Your task to perform on an android device: Add alienware aurora to the cart on newegg.com, then select checkout. Image 0: 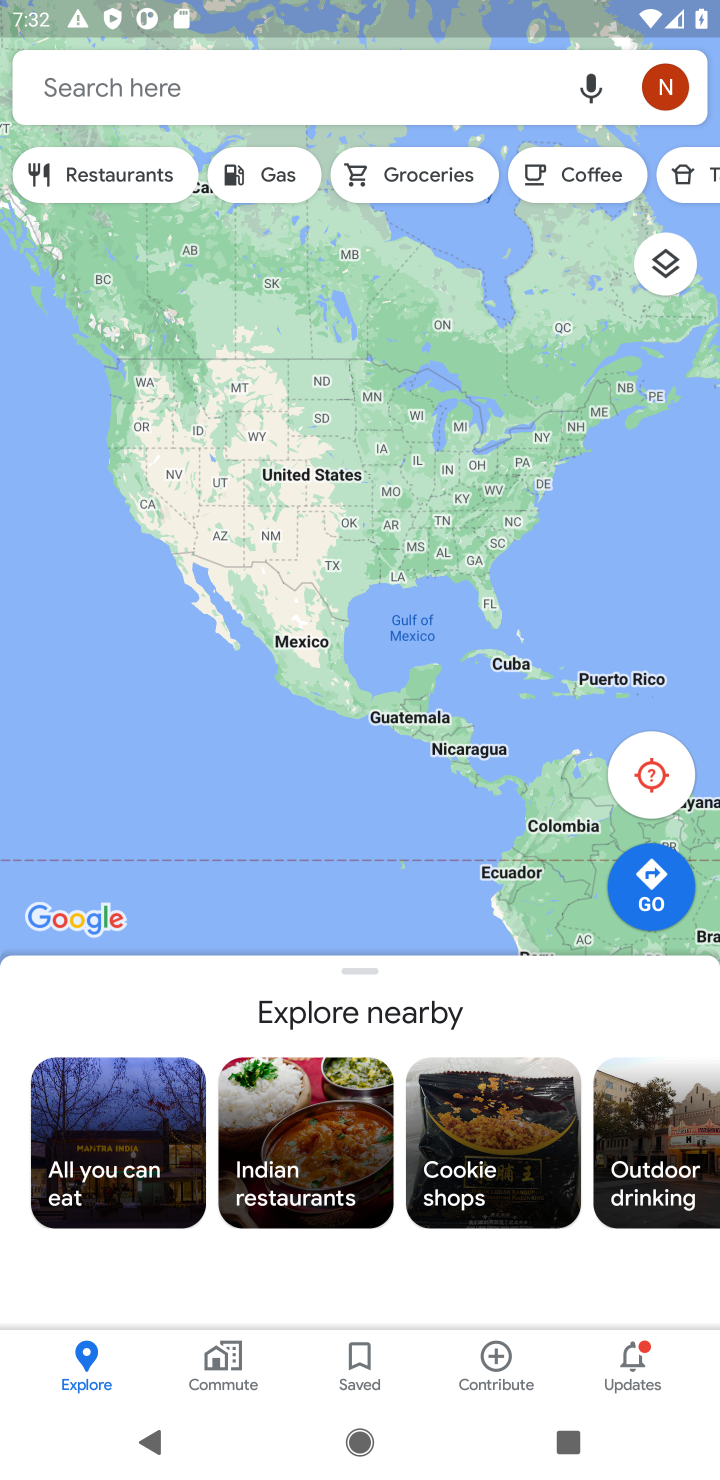
Step 0: press home button
Your task to perform on an android device: Add alienware aurora to the cart on newegg.com, then select checkout. Image 1: 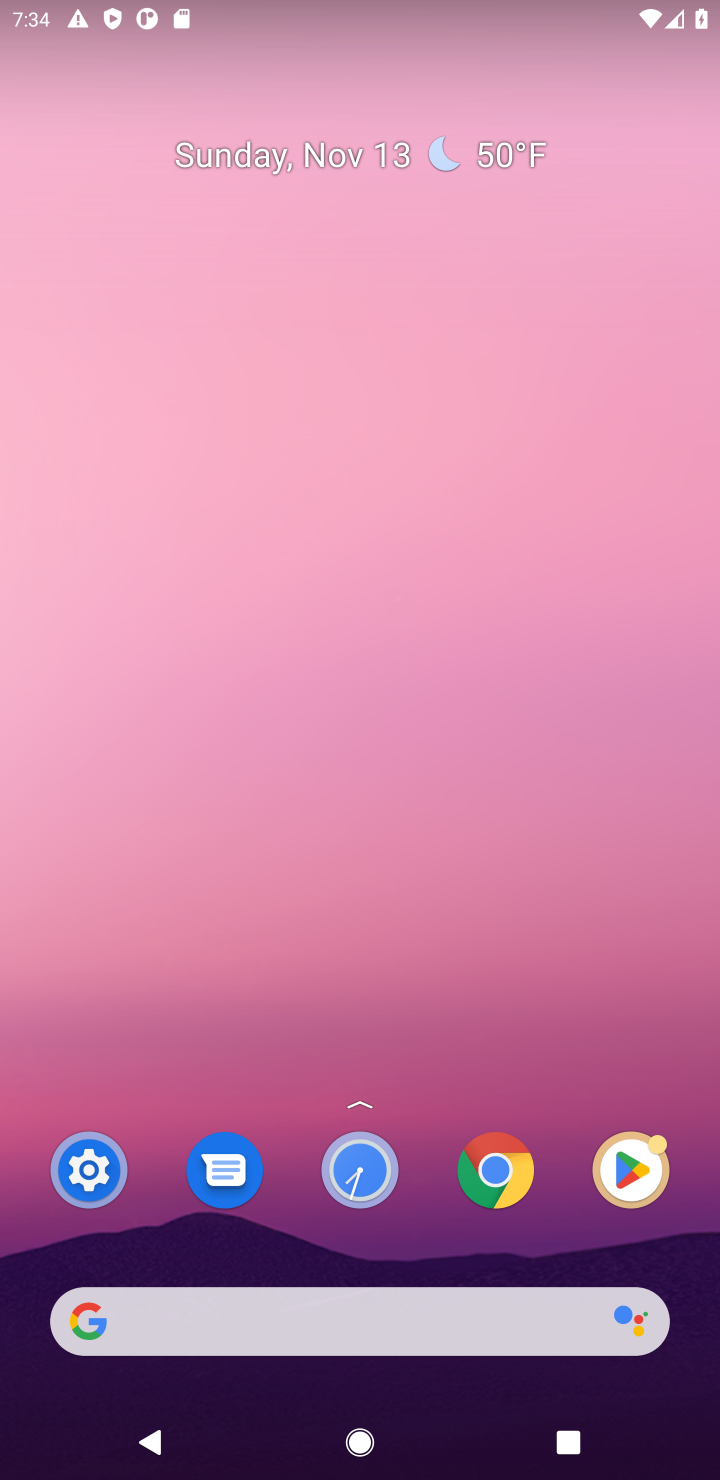
Step 1: click (277, 1330)
Your task to perform on an android device: Add alienware aurora to the cart on newegg.com, then select checkout. Image 2: 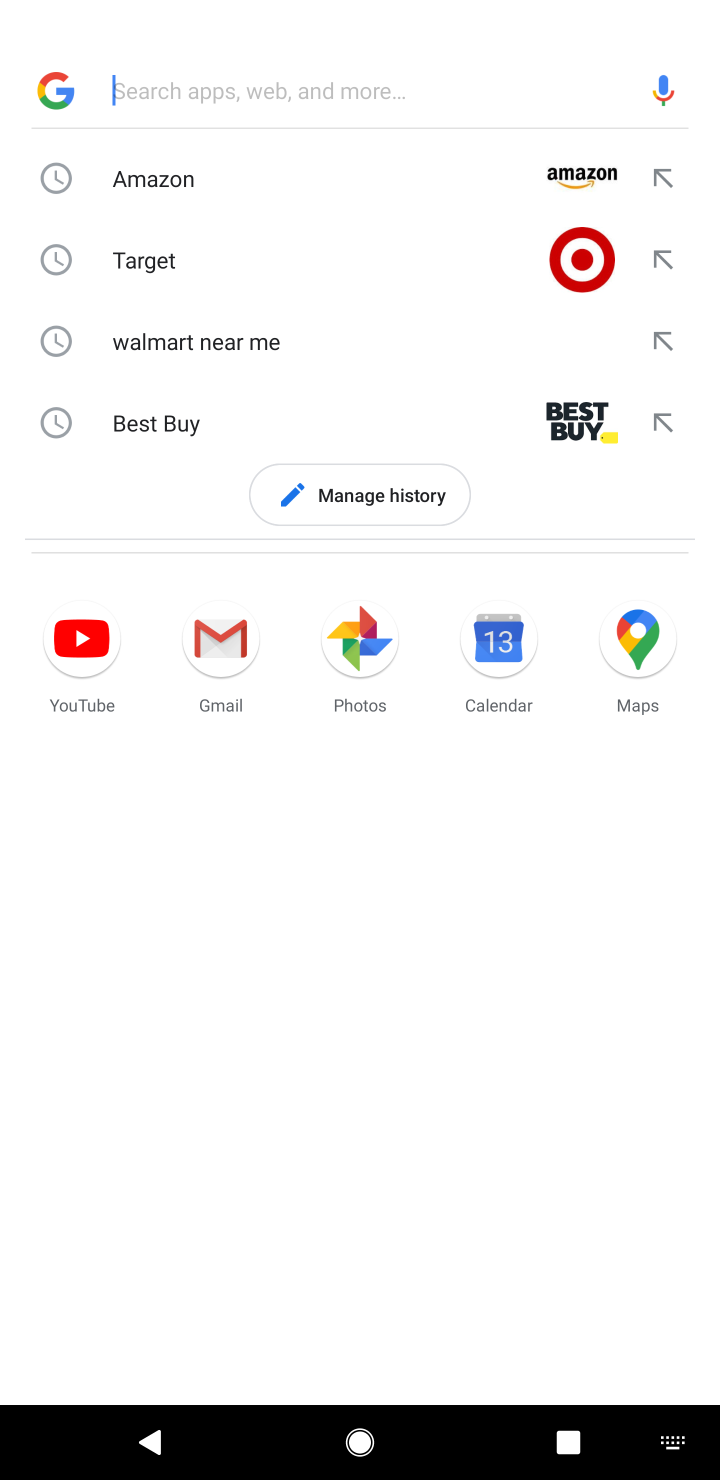
Step 2: type "newegg"
Your task to perform on an android device: Add alienware aurora to the cart on newegg.com, then select checkout. Image 3: 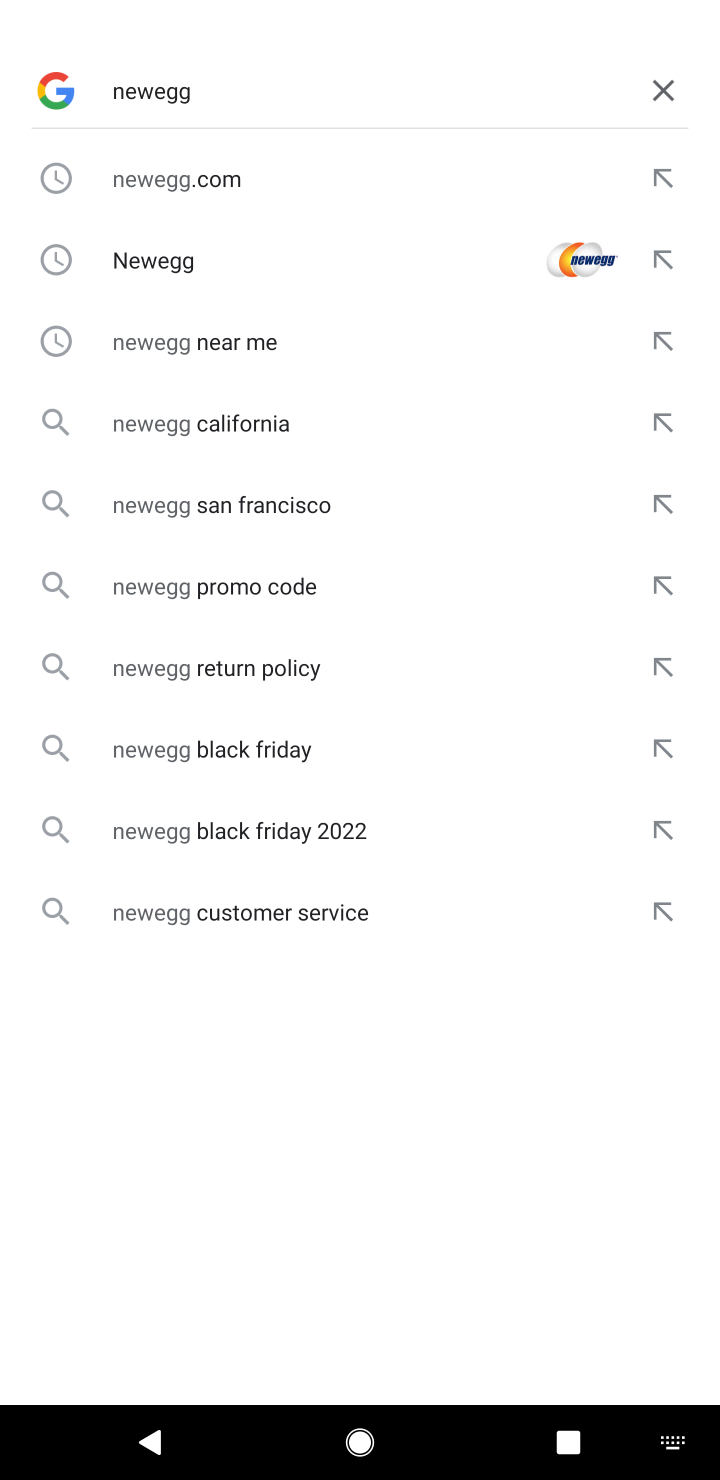
Step 3: click (253, 171)
Your task to perform on an android device: Add alienware aurora to the cart on newegg.com, then select checkout. Image 4: 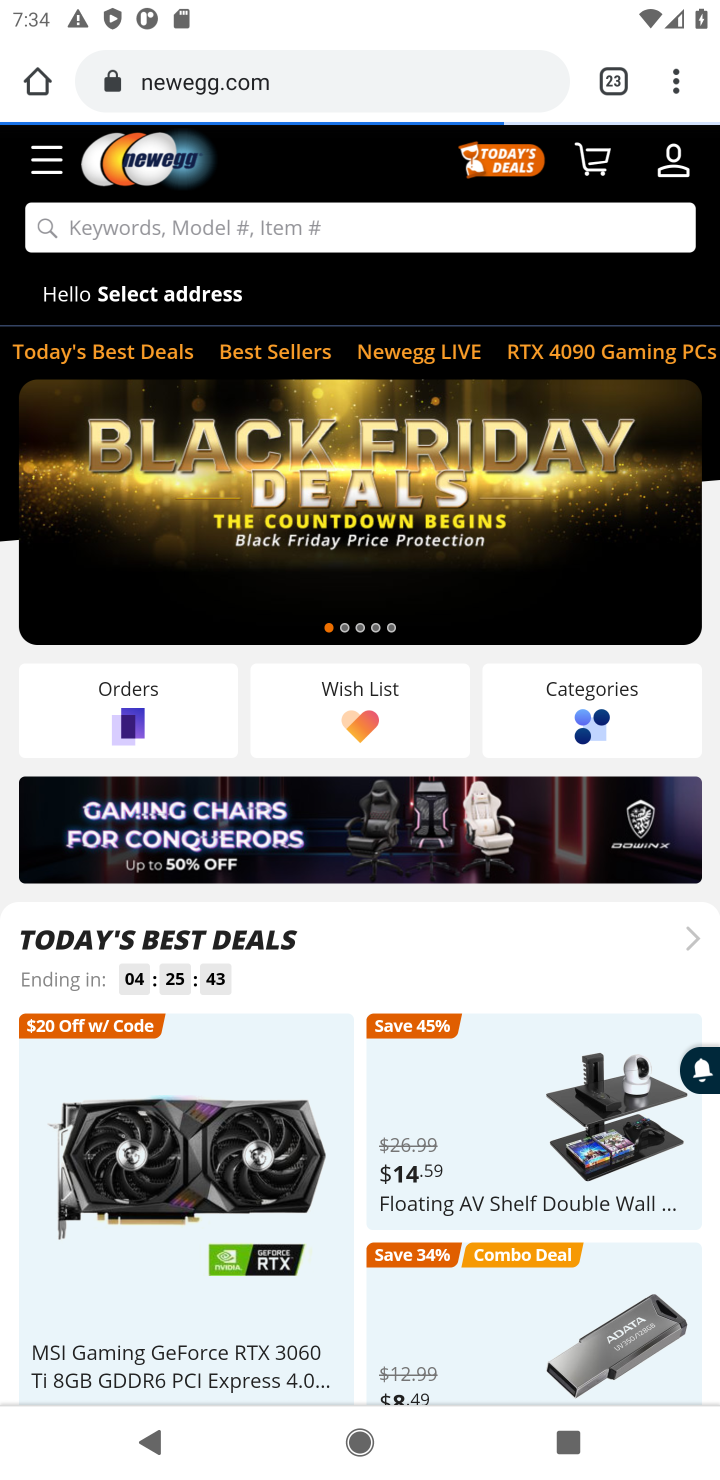
Step 4: task complete